Your task to perform on an android device: delete browsing data in the chrome app Image 0: 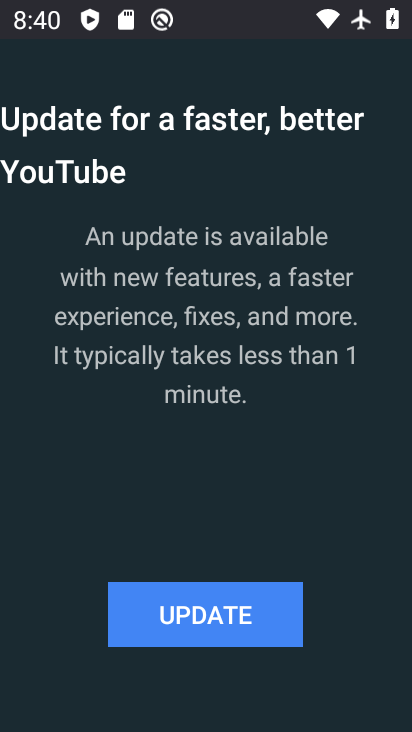
Step 0: press back button
Your task to perform on an android device: delete browsing data in the chrome app Image 1: 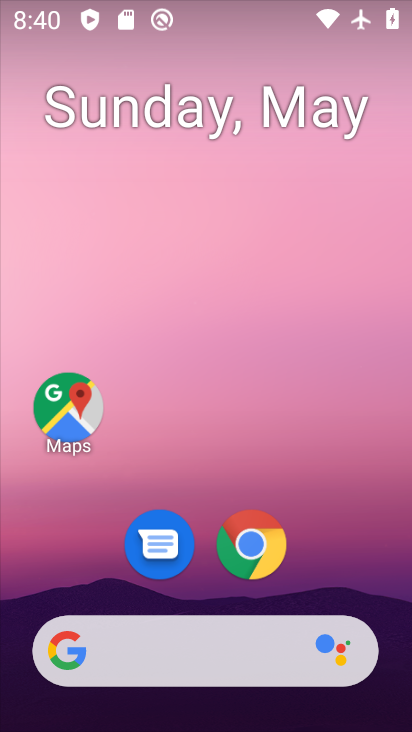
Step 1: click (246, 539)
Your task to perform on an android device: delete browsing data in the chrome app Image 2: 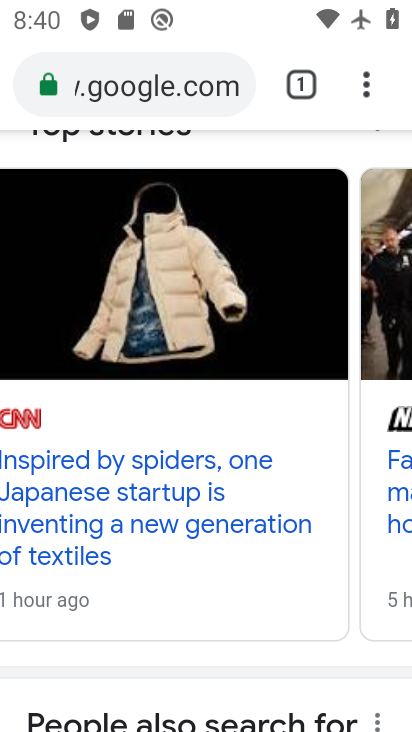
Step 2: drag from (363, 87) to (106, 478)
Your task to perform on an android device: delete browsing data in the chrome app Image 3: 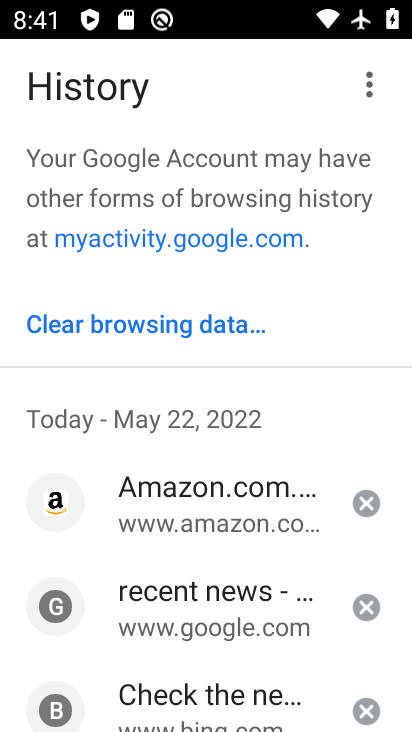
Step 3: click (183, 327)
Your task to perform on an android device: delete browsing data in the chrome app Image 4: 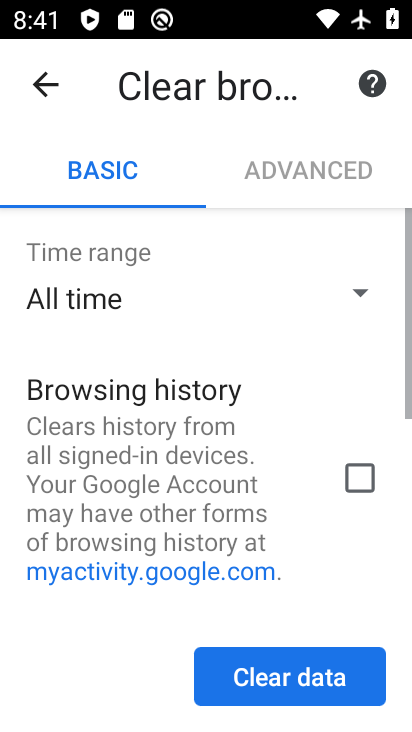
Step 4: click (350, 470)
Your task to perform on an android device: delete browsing data in the chrome app Image 5: 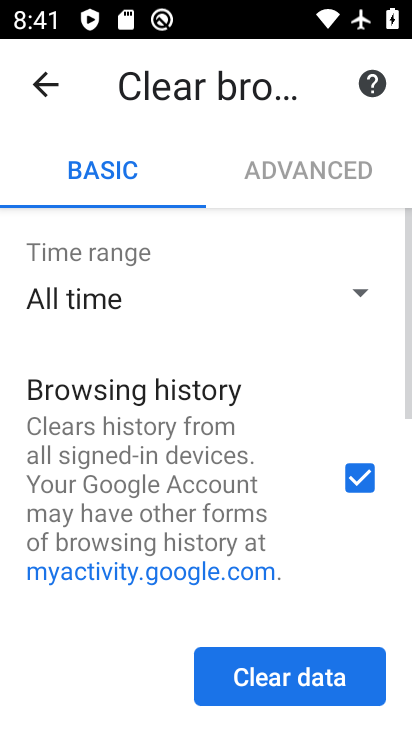
Step 5: click (279, 671)
Your task to perform on an android device: delete browsing data in the chrome app Image 6: 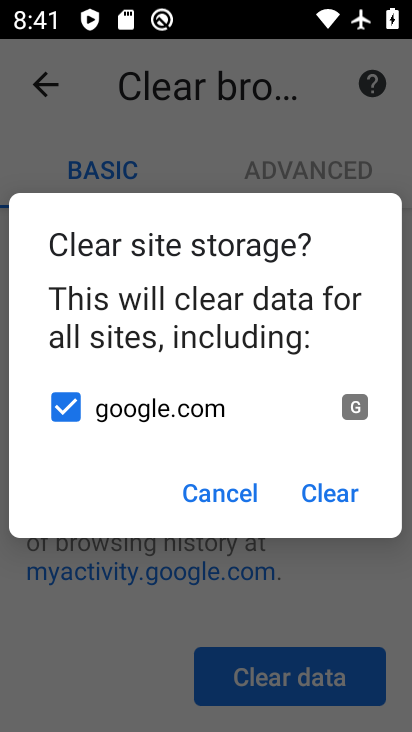
Step 6: click (312, 495)
Your task to perform on an android device: delete browsing data in the chrome app Image 7: 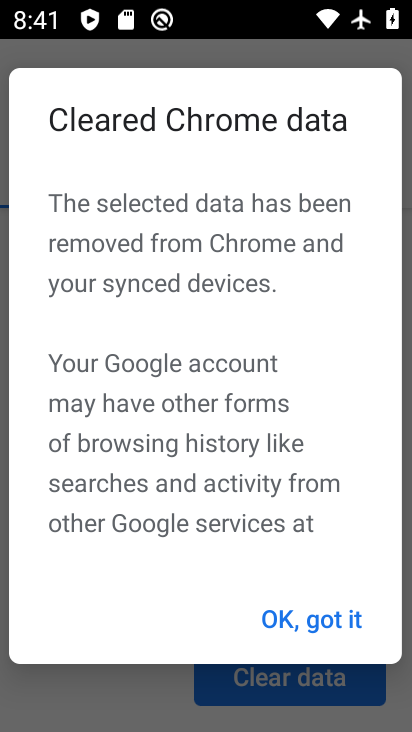
Step 7: click (320, 620)
Your task to perform on an android device: delete browsing data in the chrome app Image 8: 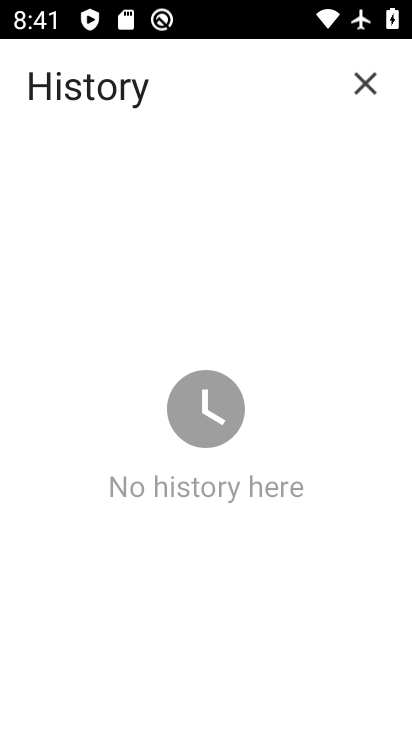
Step 8: task complete